Your task to perform on an android device: Go to Google Image 0: 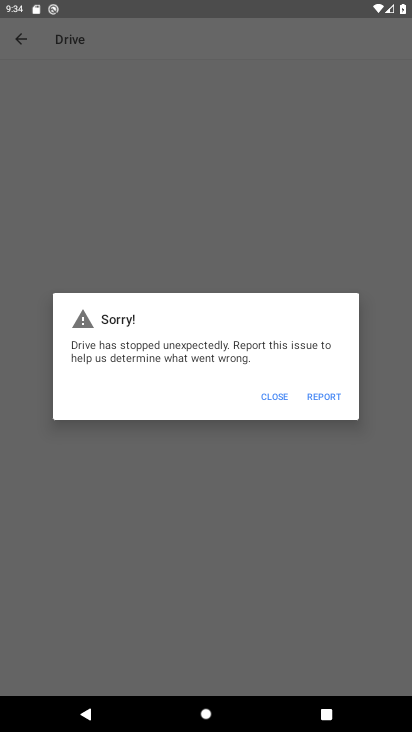
Step 0: press home button
Your task to perform on an android device: Go to Google Image 1: 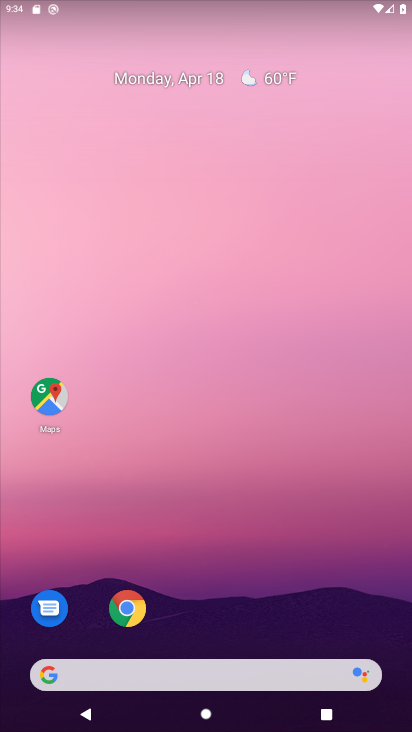
Step 1: drag from (332, 413) to (347, 79)
Your task to perform on an android device: Go to Google Image 2: 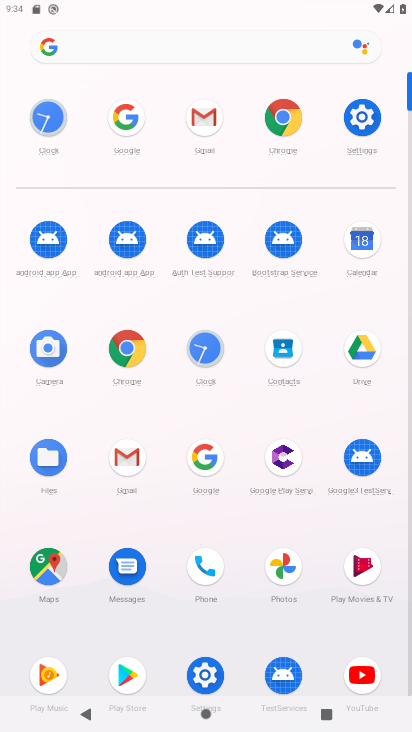
Step 2: click (137, 122)
Your task to perform on an android device: Go to Google Image 3: 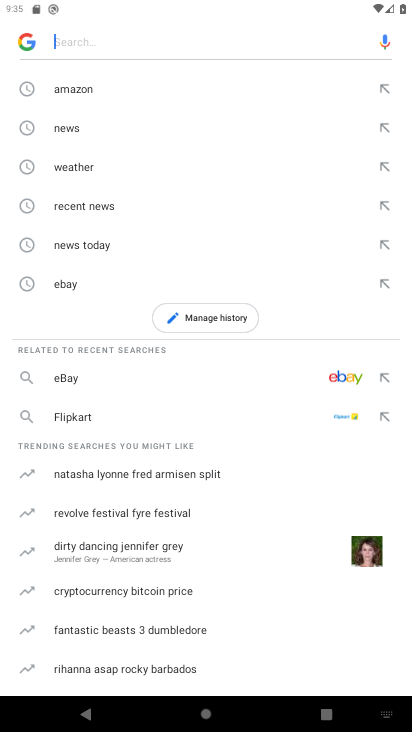
Step 3: task complete